Your task to perform on an android device: turn on priority inbox in the gmail app Image 0: 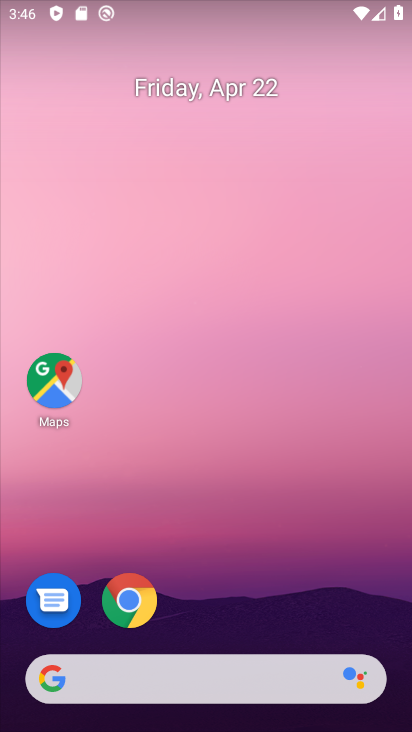
Step 0: click (349, 41)
Your task to perform on an android device: turn on priority inbox in the gmail app Image 1: 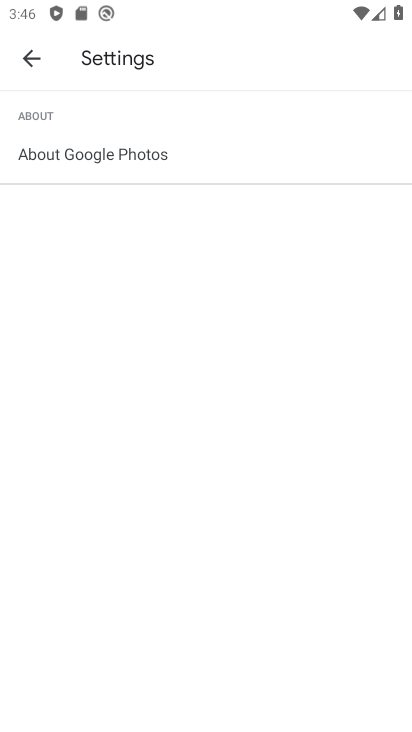
Step 1: press back button
Your task to perform on an android device: turn on priority inbox in the gmail app Image 2: 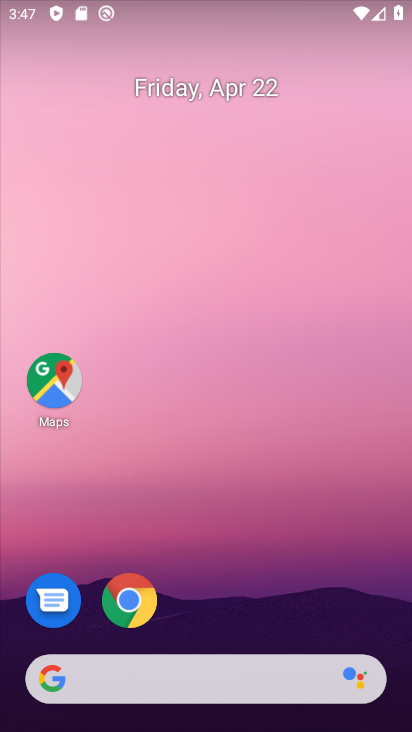
Step 2: drag from (209, 505) to (307, 42)
Your task to perform on an android device: turn on priority inbox in the gmail app Image 3: 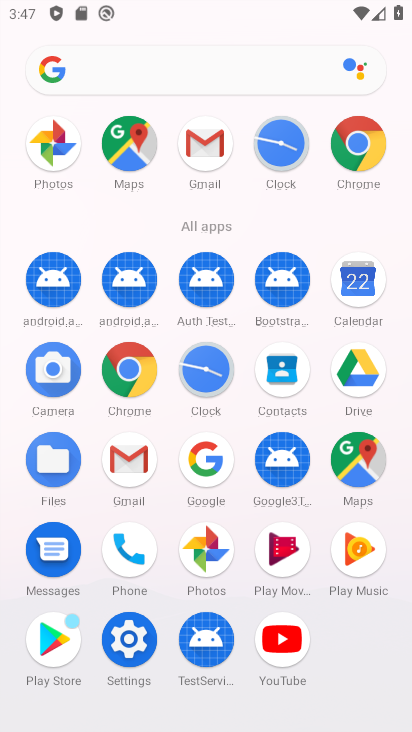
Step 3: click (115, 461)
Your task to perform on an android device: turn on priority inbox in the gmail app Image 4: 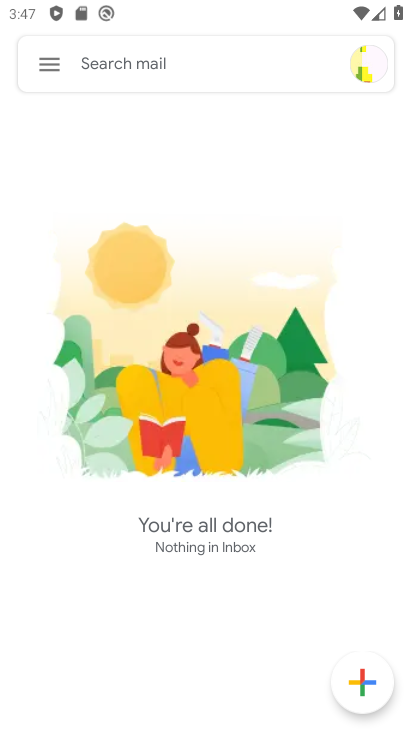
Step 4: click (45, 70)
Your task to perform on an android device: turn on priority inbox in the gmail app Image 5: 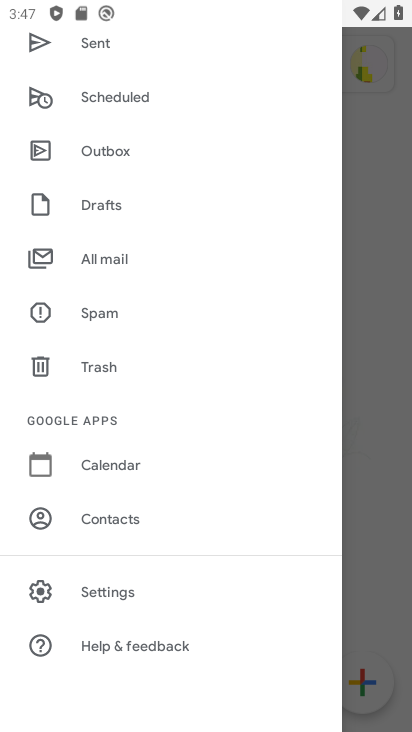
Step 5: click (135, 590)
Your task to perform on an android device: turn on priority inbox in the gmail app Image 6: 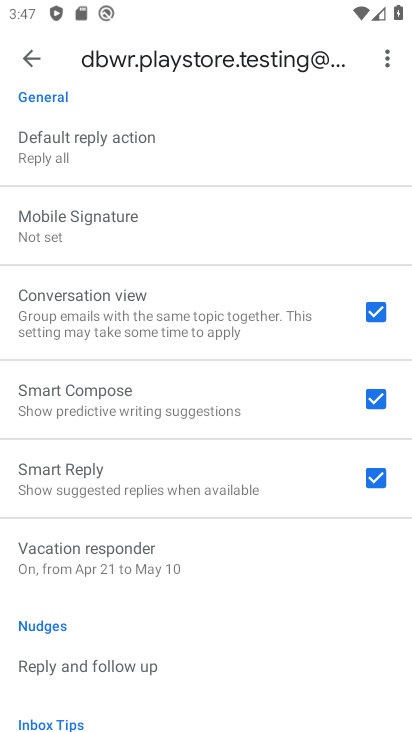
Step 6: drag from (149, 632) to (317, 106)
Your task to perform on an android device: turn on priority inbox in the gmail app Image 7: 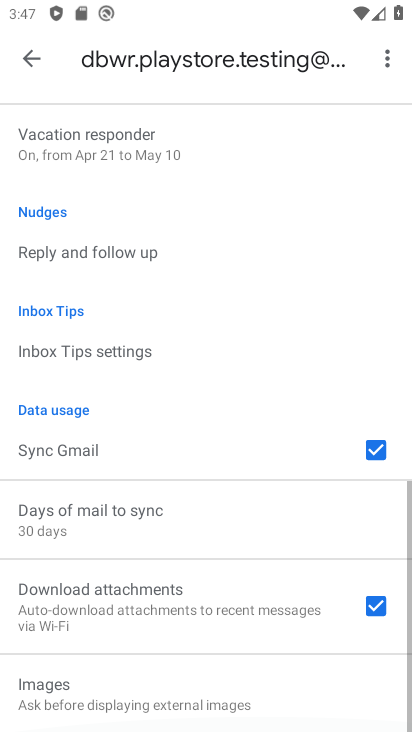
Step 7: drag from (182, 560) to (287, 251)
Your task to perform on an android device: turn on priority inbox in the gmail app Image 8: 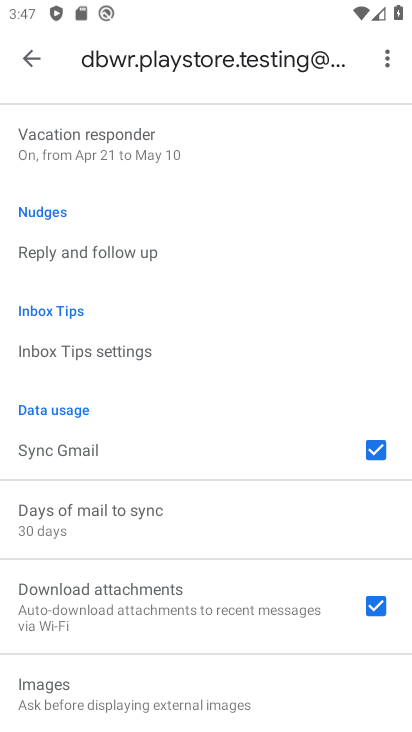
Step 8: drag from (140, 592) to (210, 661)
Your task to perform on an android device: turn on priority inbox in the gmail app Image 9: 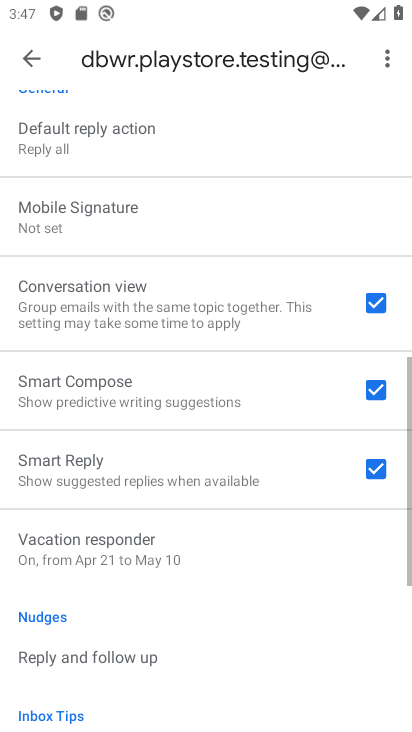
Step 9: drag from (220, 178) to (201, 629)
Your task to perform on an android device: turn on priority inbox in the gmail app Image 10: 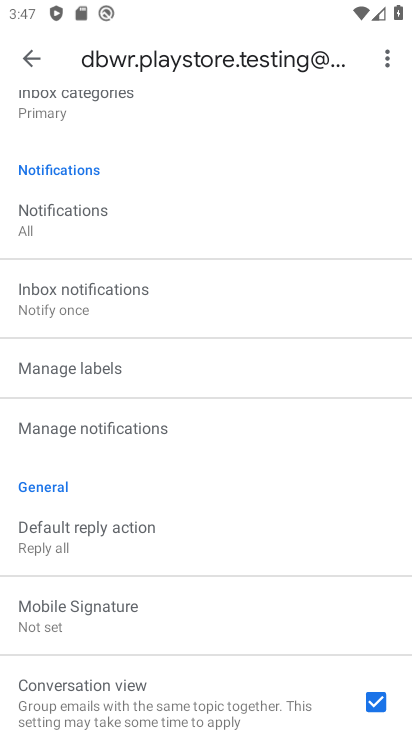
Step 10: drag from (169, 162) to (174, 495)
Your task to perform on an android device: turn on priority inbox in the gmail app Image 11: 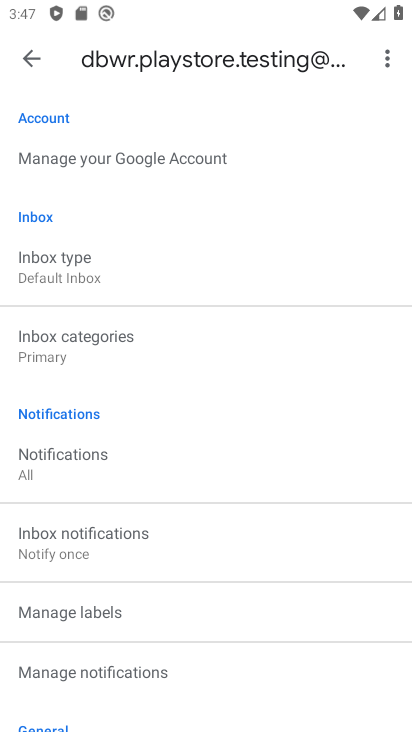
Step 11: click (108, 277)
Your task to perform on an android device: turn on priority inbox in the gmail app Image 12: 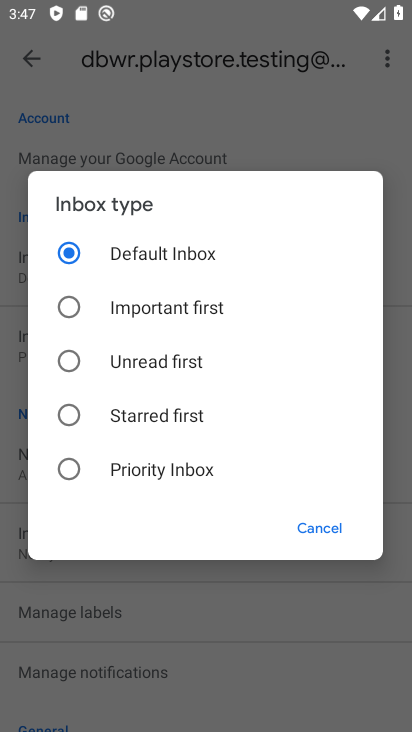
Step 12: click (172, 472)
Your task to perform on an android device: turn on priority inbox in the gmail app Image 13: 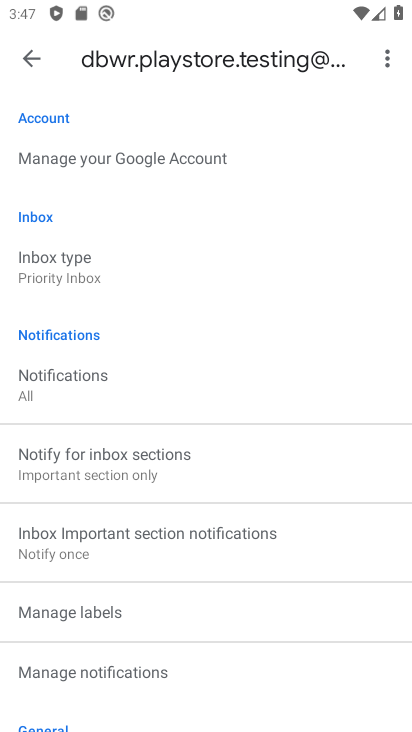
Step 13: task complete